Your task to perform on an android device: add a contact in the contacts app Image 0: 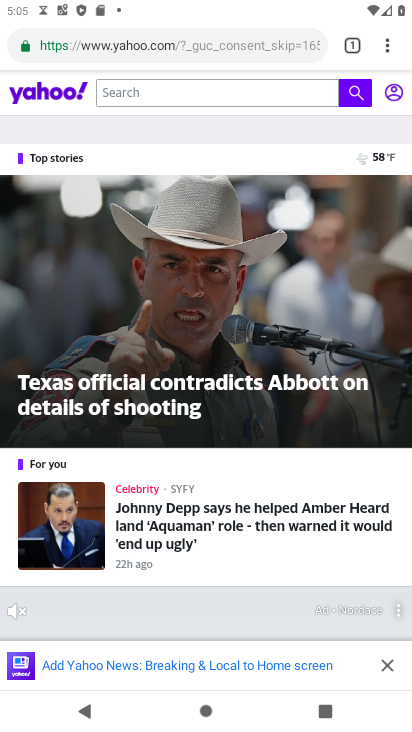
Step 0: press back button
Your task to perform on an android device: add a contact in the contacts app Image 1: 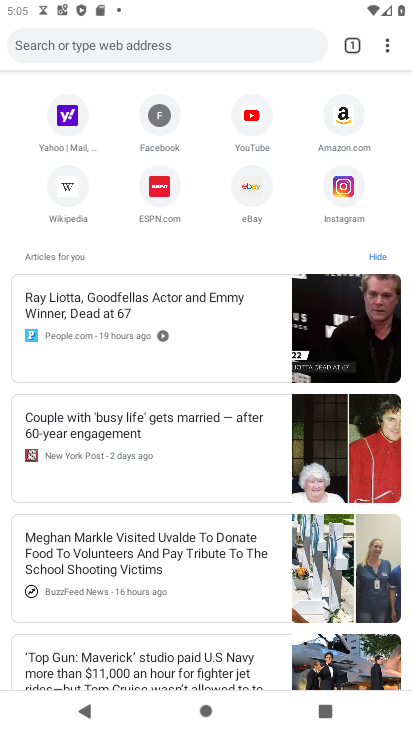
Step 1: press back button
Your task to perform on an android device: add a contact in the contacts app Image 2: 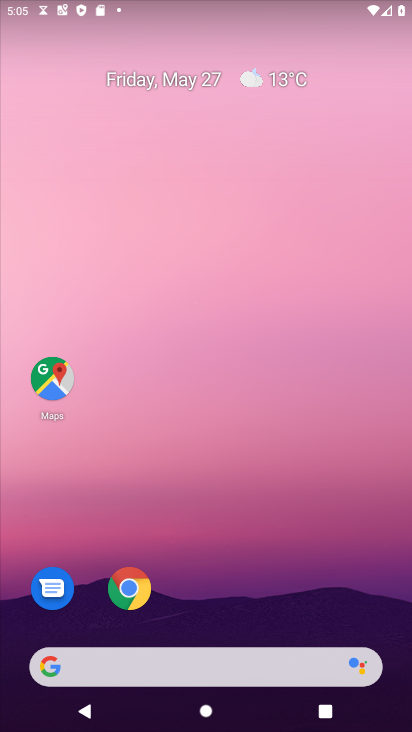
Step 2: drag from (261, 469) to (318, 20)
Your task to perform on an android device: add a contact in the contacts app Image 3: 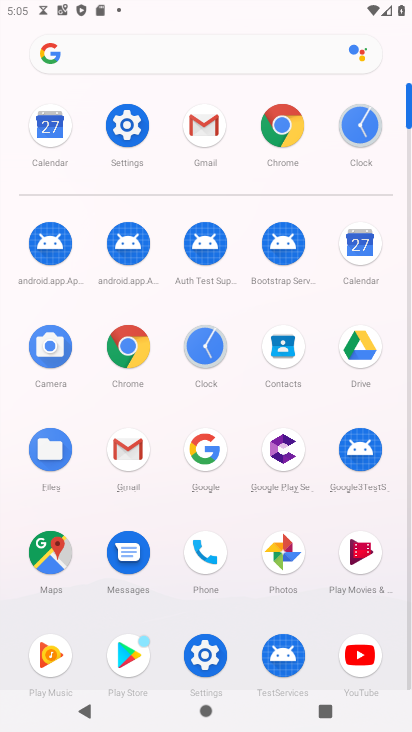
Step 3: click (292, 351)
Your task to perform on an android device: add a contact in the contacts app Image 4: 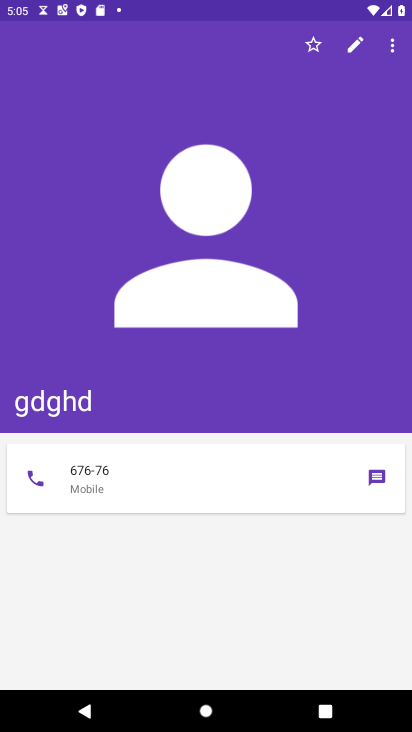
Step 4: press back button
Your task to perform on an android device: add a contact in the contacts app Image 5: 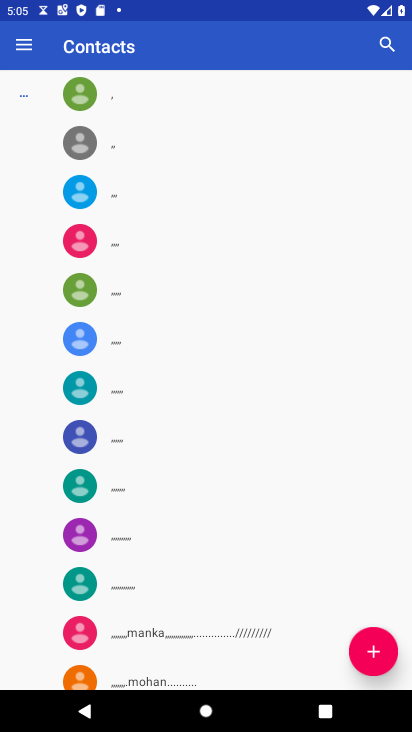
Step 5: click (385, 652)
Your task to perform on an android device: add a contact in the contacts app Image 6: 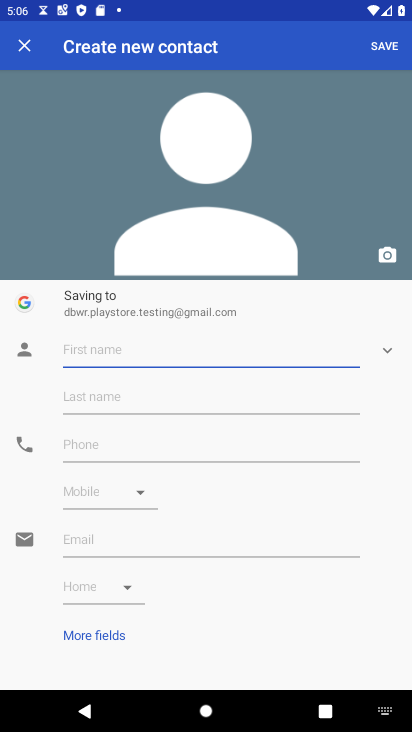
Step 6: type "gfhgfh"
Your task to perform on an android device: add a contact in the contacts app Image 7: 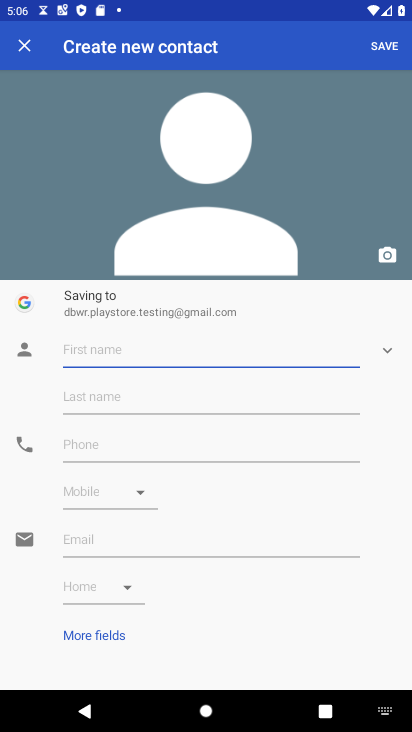
Step 7: click (116, 443)
Your task to perform on an android device: add a contact in the contacts app Image 8: 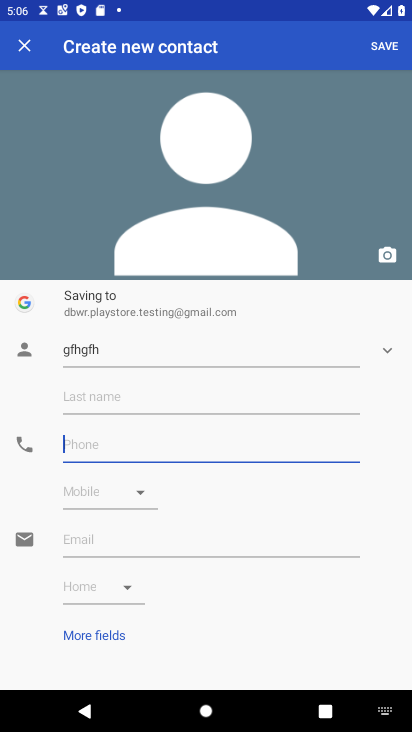
Step 8: type "67655"
Your task to perform on an android device: add a contact in the contacts app Image 9: 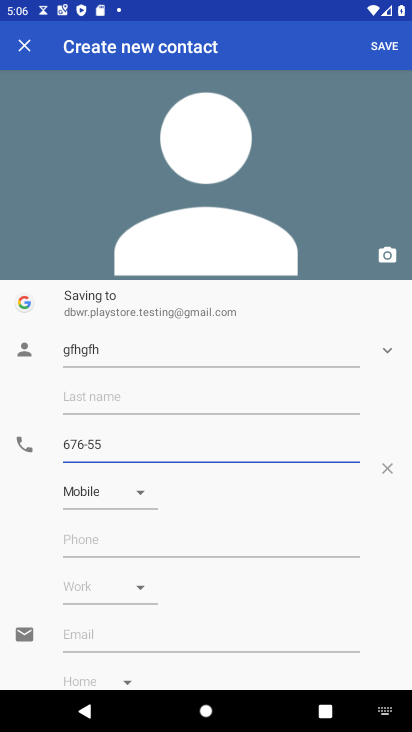
Step 9: click (366, 45)
Your task to perform on an android device: add a contact in the contacts app Image 10: 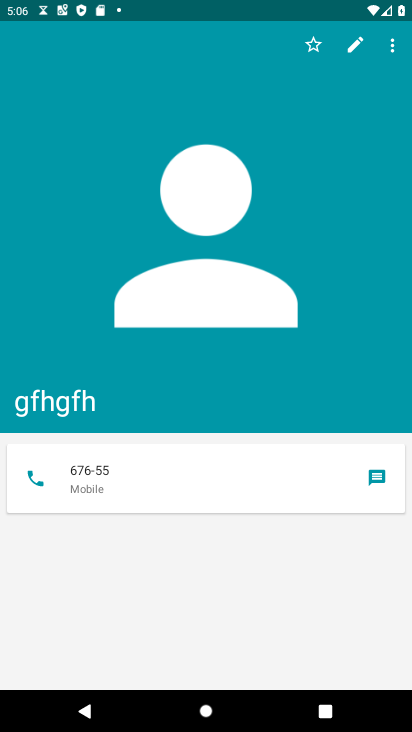
Step 10: task complete